Your task to perform on an android device: Open CNN.com Image 0: 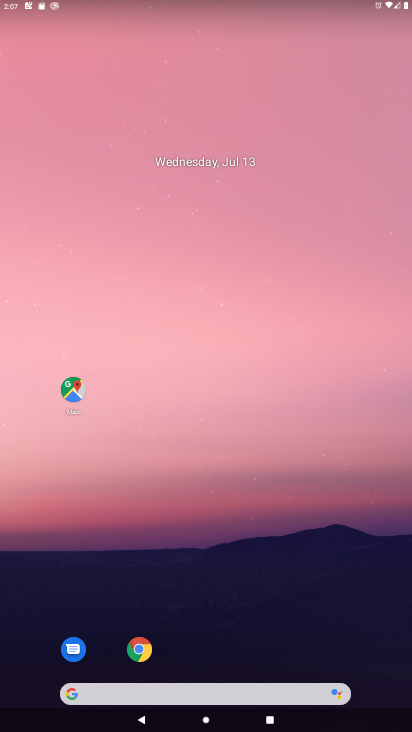
Step 0: press home button
Your task to perform on an android device: Open CNN.com Image 1: 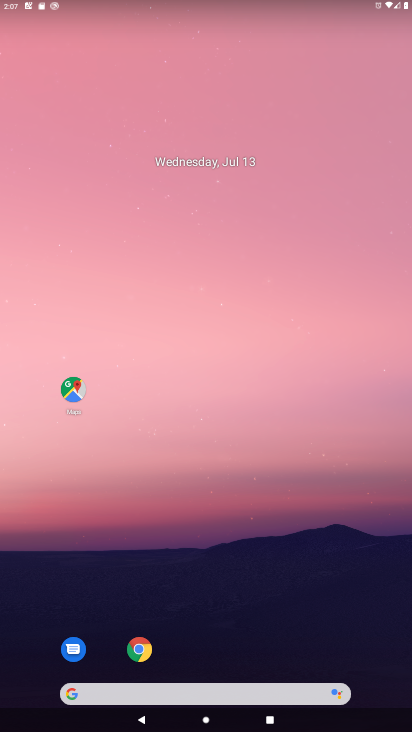
Step 1: click (146, 650)
Your task to perform on an android device: Open CNN.com Image 2: 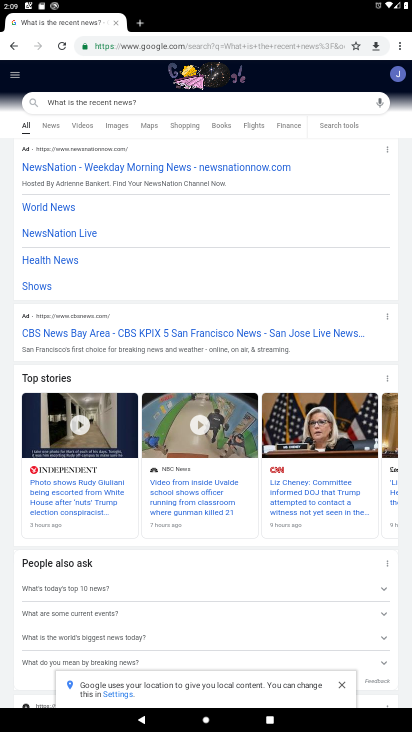
Step 2: click (191, 45)
Your task to perform on an android device: Open CNN.com Image 3: 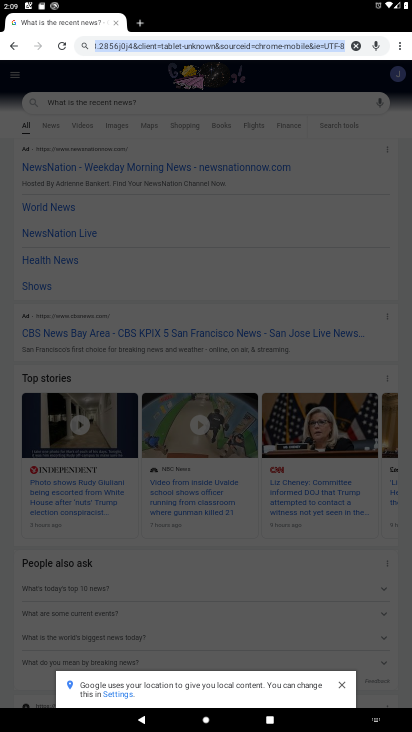
Step 3: type " CNN.com"
Your task to perform on an android device: Open CNN.com Image 4: 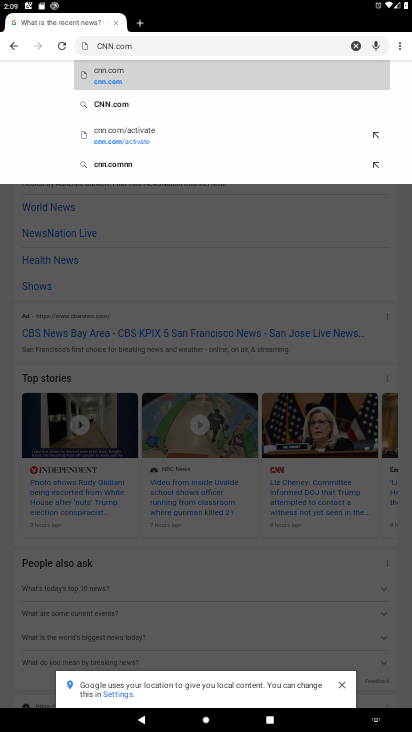
Step 4: click (121, 74)
Your task to perform on an android device: Open CNN.com Image 5: 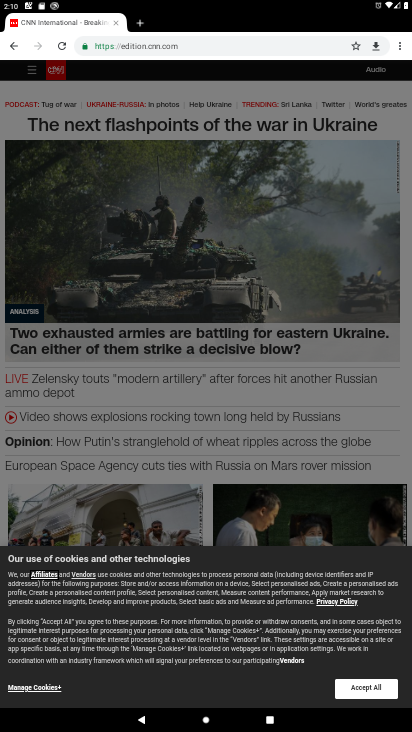
Step 5: task complete